Your task to perform on an android device: Go to Google maps Image 0: 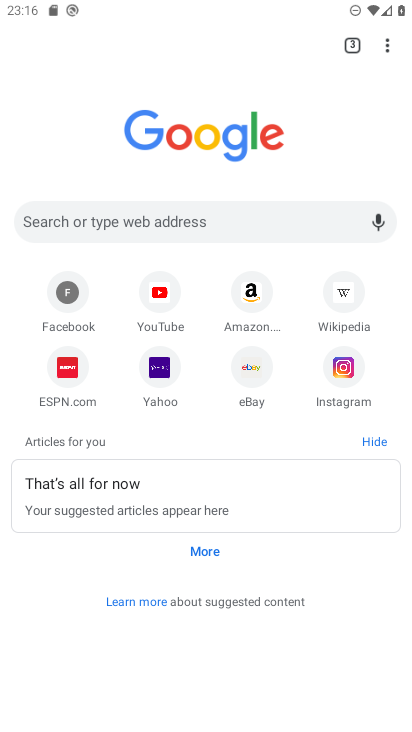
Step 0: press home button
Your task to perform on an android device: Go to Google maps Image 1: 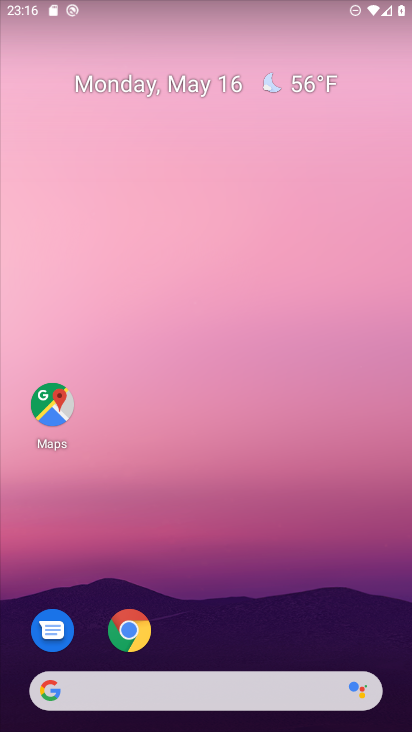
Step 1: click (40, 400)
Your task to perform on an android device: Go to Google maps Image 2: 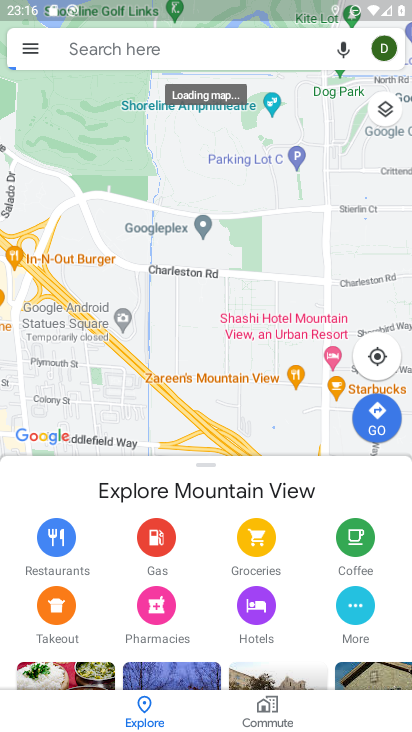
Step 2: task complete